Your task to perform on an android device: Search for sushi restaurants on Maps Image 0: 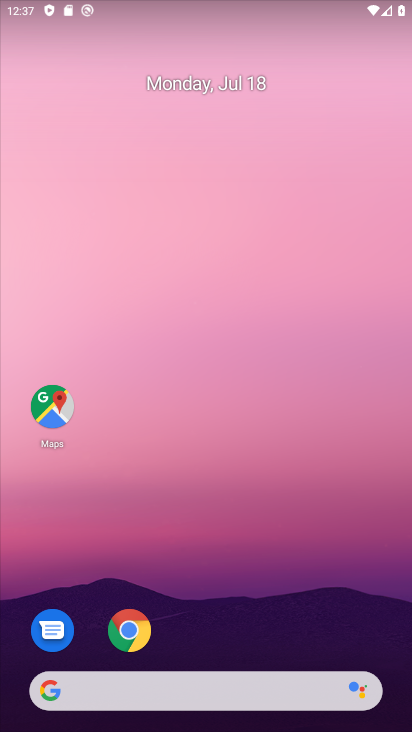
Step 0: click (59, 400)
Your task to perform on an android device: Search for sushi restaurants on Maps Image 1: 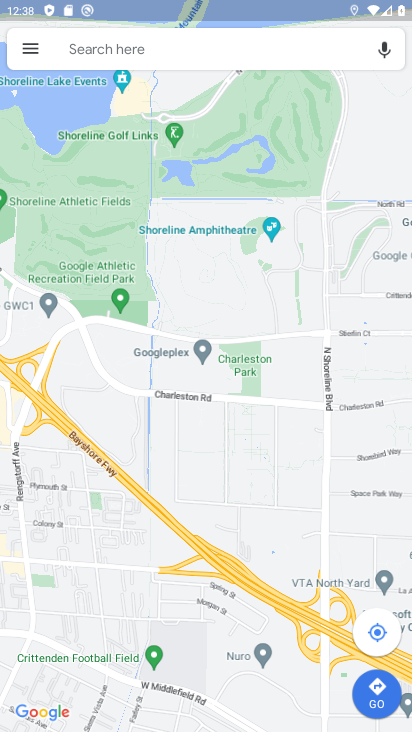
Step 1: click (291, 56)
Your task to perform on an android device: Search for sushi restaurants on Maps Image 2: 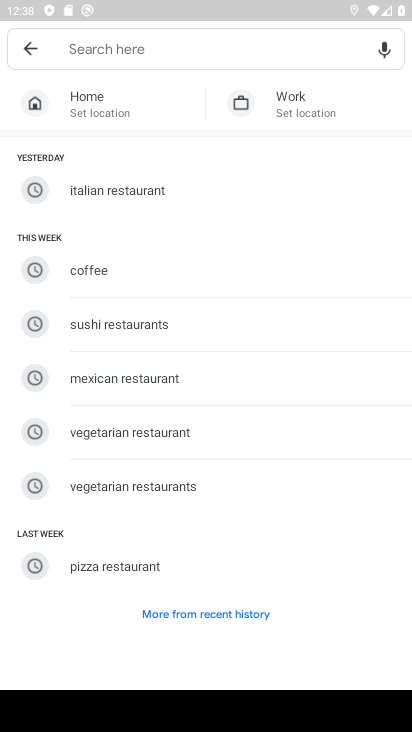
Step 2: click (242, 329)
Your task to perform on an android device: Search for sushi restaurants on Maps Image 3: 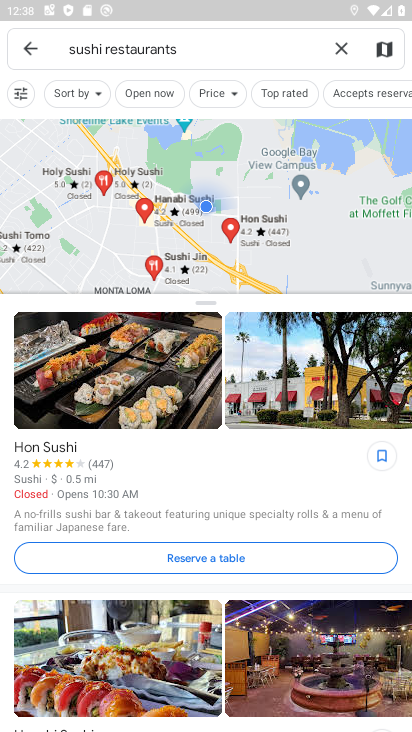
Step 3: task complete